Your task to perform on an android device: open app "Upside-Cash back on gas & food" Image 0: 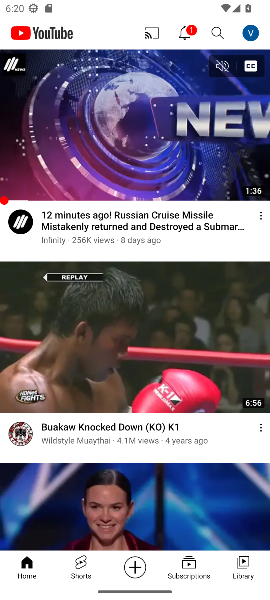
Step 0: press home button
Your task to perform on an android device: open app "Upside-Cash back on gas & food" Image 1: 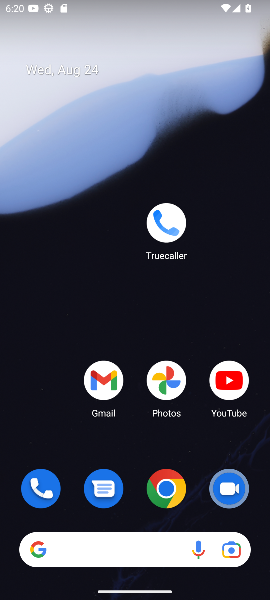
Step 1: click (224, 386)
Your task to perform on an android device: open app "Upside-Cash back on gas & food" Image 2: 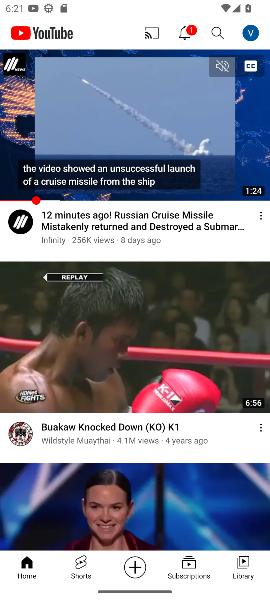
Step 2: press home button
Your task to perform on an android device: open app "Upside-Cash back on gas & food" Image 3: 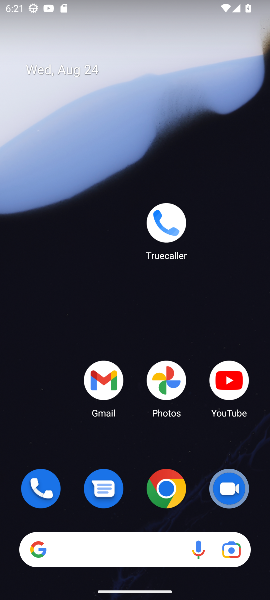
Step 3: click (101, 15)
Your task to perform on an android device: open app "Upside-Cash back on gas & food" Image 4: 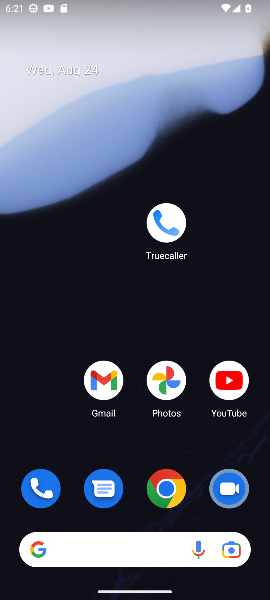
Step 4: drag from (138, 510) to (145, 2)
Your task to perform on an android device: open app "Upside-Cash back on gas & food" Image 5: 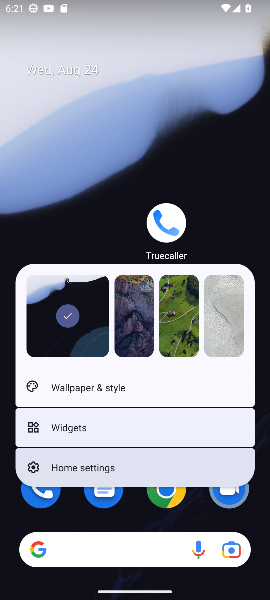
Step 5: click (162, 154)
Your task to perform on an android device: open app "Upside-Cash back on gas & food" Image 6: 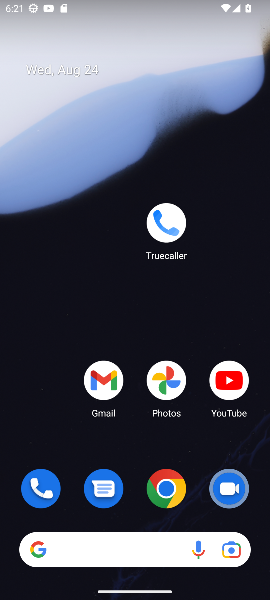
Step 6: drag from (143, 519) to (143, 130)
Your task to perform on an android device: open app "Upside-Cash back on gas & food" Image 7: 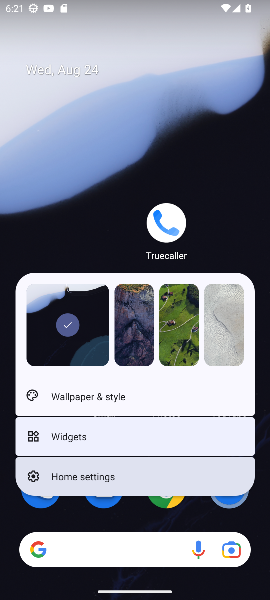
Step 7: click (158, 118)
Your task to perform on an android device: open app "Upside-Cash back on gas & food" Image 8: 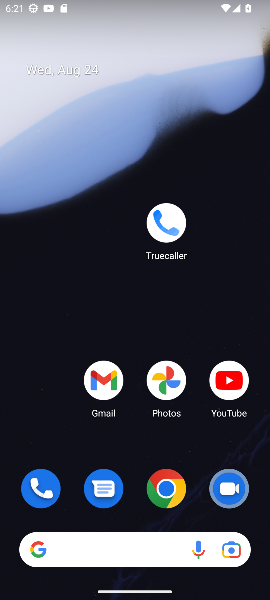
Step 8: drag from (135, 513) to (134, 53)
Your task to perform on an android device: open app "Upside-Cash back on gas & food" Image 9: 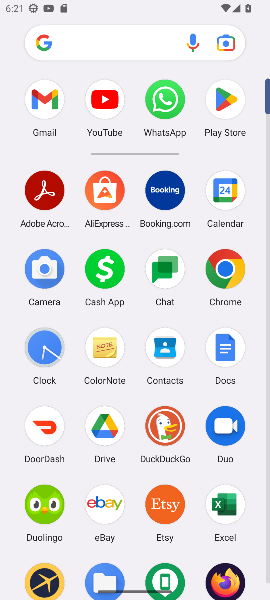
Step 9: click (233, 104)
Your task to perform on an android device: open app "Upside-Cash back on gas & food" Image 10: 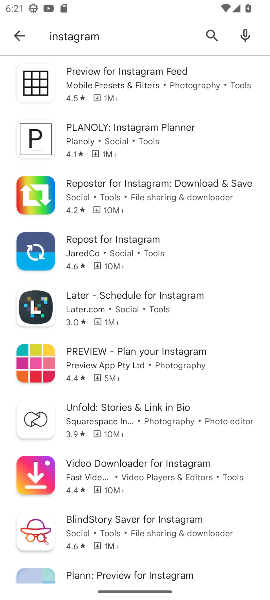
Step 10: click (216, 42)
Your task to perform on an android device: open app "Upside-Cash back on gas & food" Image 11: 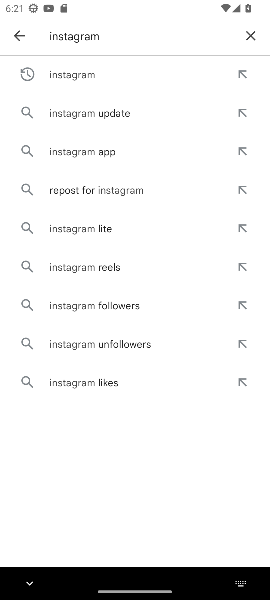
Step 11: click (249, 40)
Your task to perform on an android device: open app "Upside-Cash back on gas & food" Image 12: 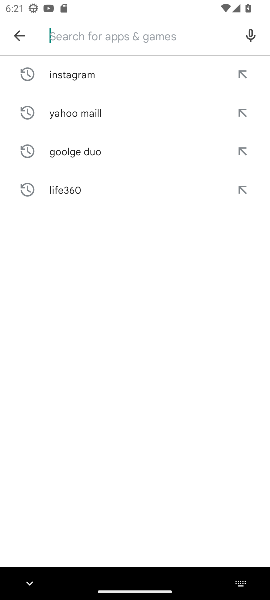
Step 12: type "upside"
Your task to perform on an android device: open app "Upside-Cash back on gas & food" Image 13: 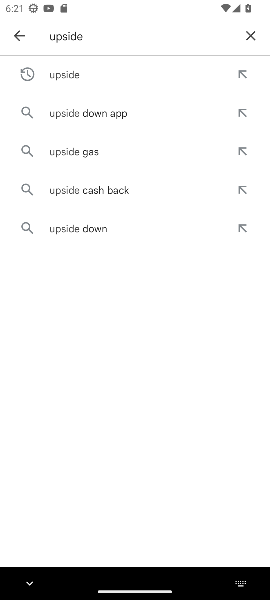
Step 13: click (136, 75)
Your task to perform on an android device: open app "Upside-Cash back on gas & food" Image 14: 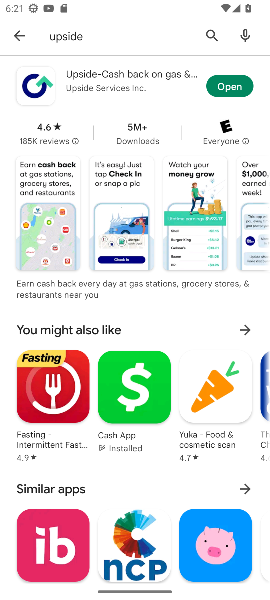
Step 14: click (215, 78)
Your task to perform on an android device: open app "Upside-Cash back on gas & food" Image 15: 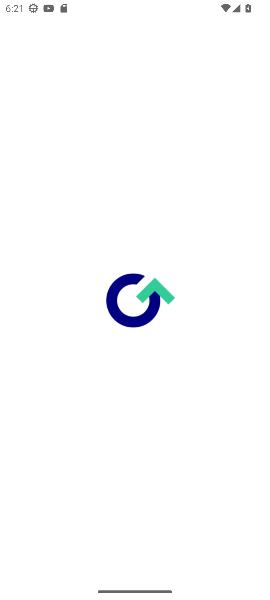
Step 15: task complete